Your task to perform on an android device: turn off picture-in-picture Image 0: 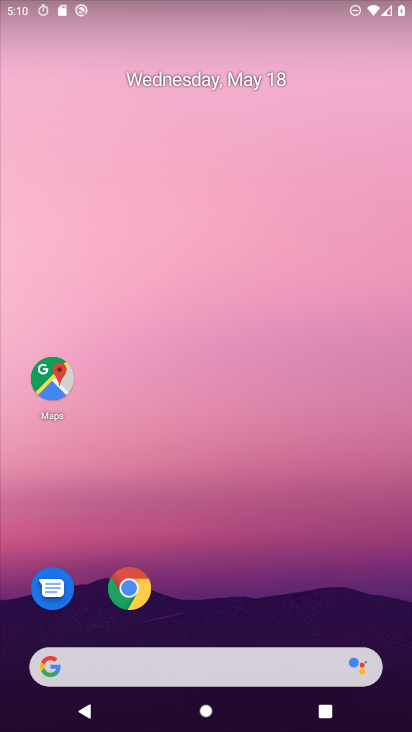
Step 0: click (141, 593)
Your task to perform on an android device: turn off picture-in-picture Image 1: 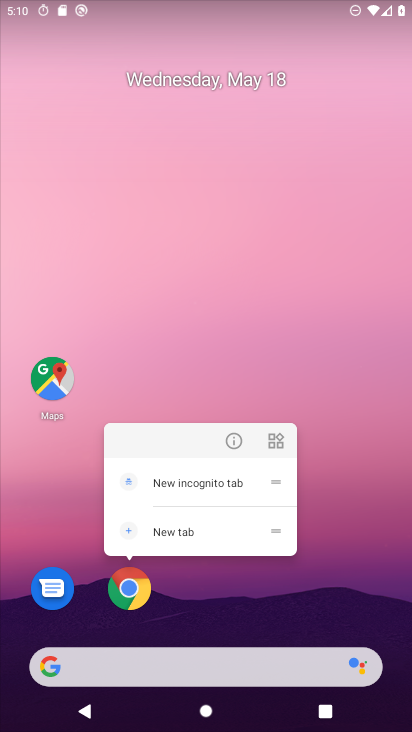
Step 1: click (133, 589)
Your task to perform on an android device: turn off picture-in-picture Image 2: 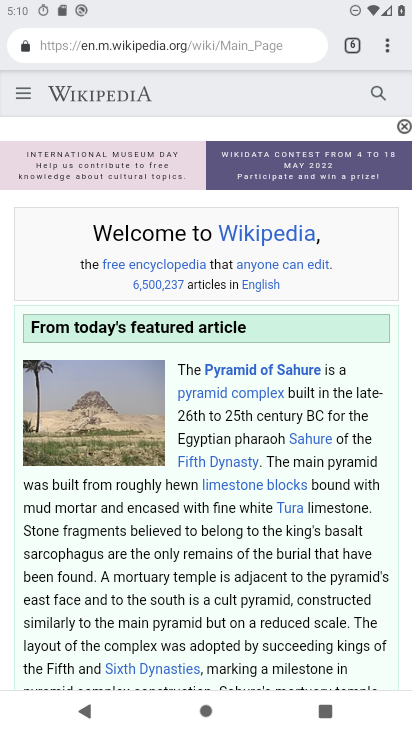
Step 2: click (391, 42)
Your task to perform on an android device: turn off picture-in-picture Image 3: 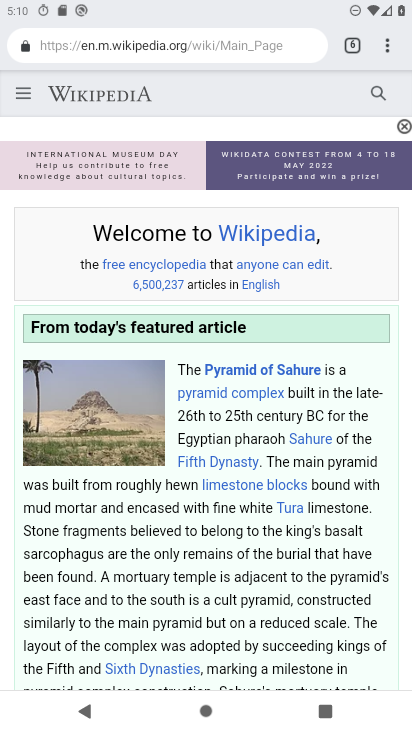
Step 3: press home button
Your task to perform on an android device: turn off picture-in-picture Image 4: 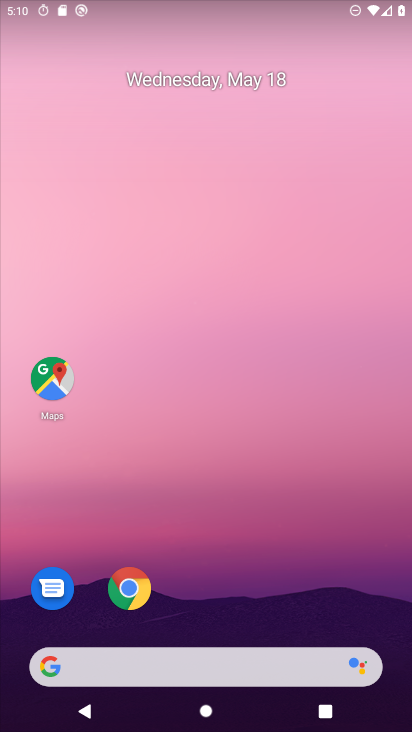
Step 4: click (140, 586)
Your task to perform on an android device: turn off picture-in-picture Image 5: 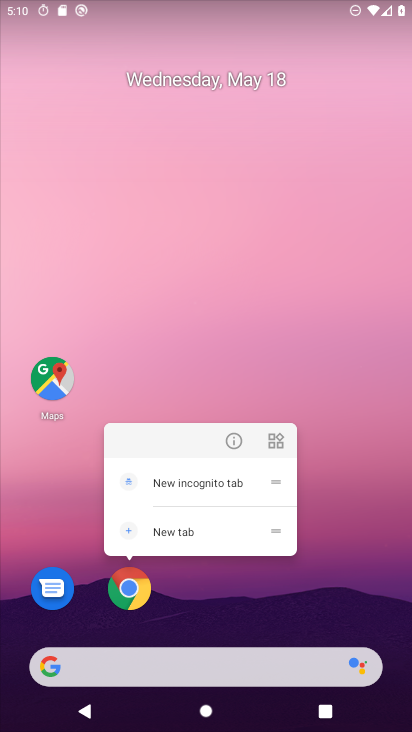
Step 5: click (226, 441)
Your task to perform on an android device: turn off picture-in-picture Image 6: 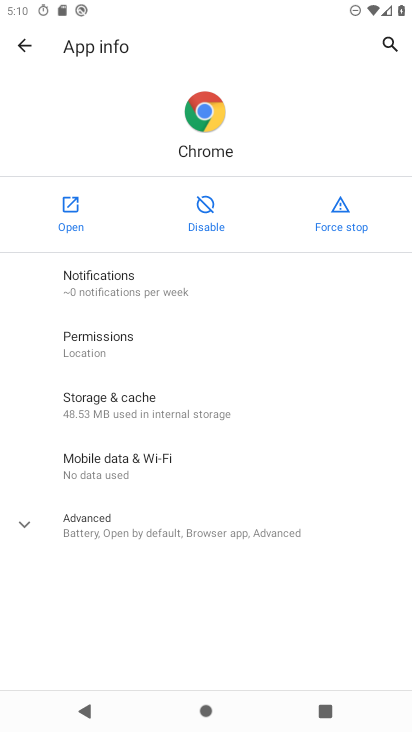
Step 6: click (124, 532)
Your task to perform on an android device: turn off picture-in-picture Image 7: 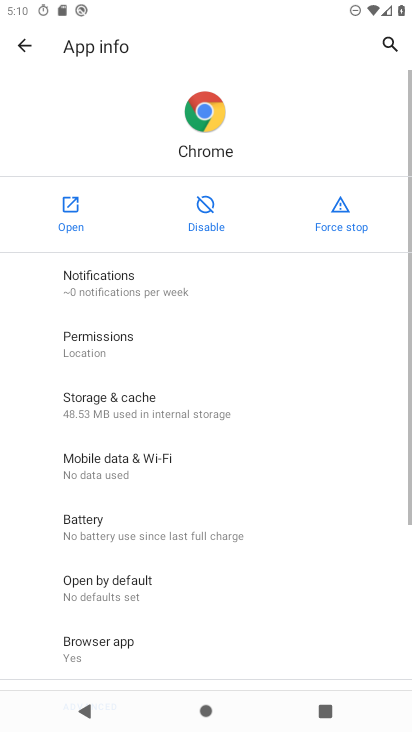
Step 7: drag from (227, 621) to (240, 261)
Your task to perform on an android device: turn off picture-in-picture Image 8: 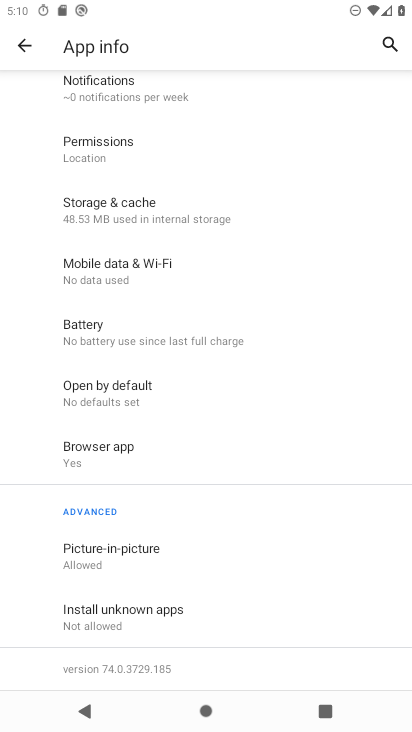
Step 8: click (126, 542)
Your task to perform on an android device: turn off picture-in-picture Image 9: 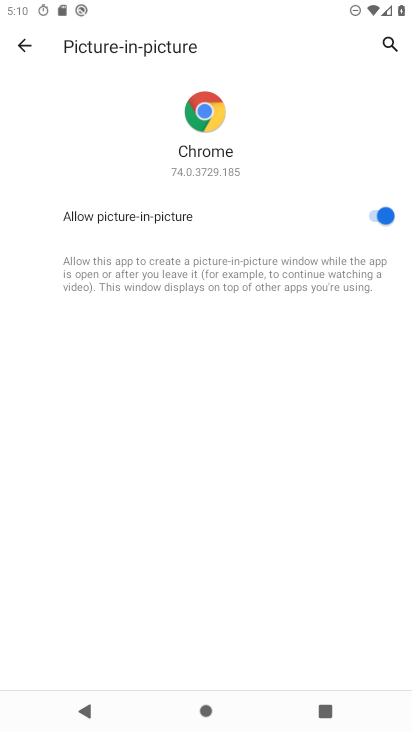
Step 9: click (388, 209)
Your task to perform on an android device: turn off picture-in-picture Image 10: 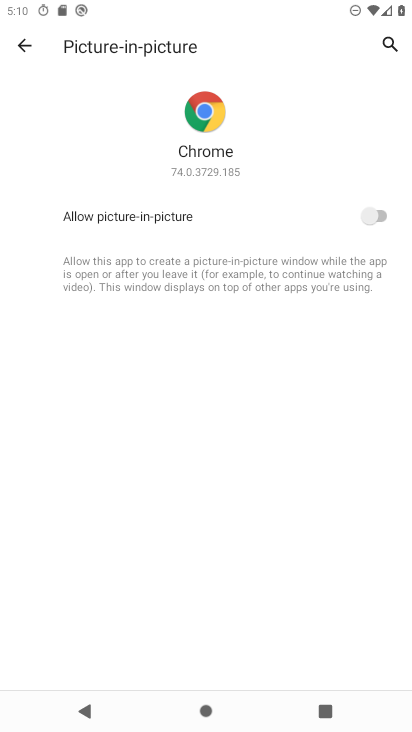
Step 10: task complete